Your task to perform on an android device: change notification settings in the gmail app Image 0: 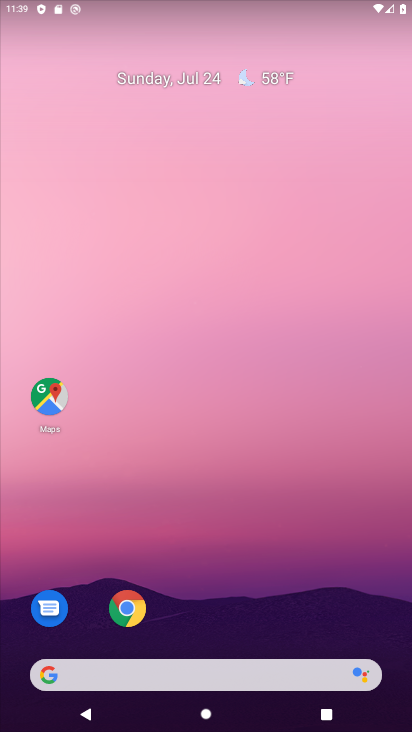
Step 0: drag from (232, 665) to (158, 178)
Your task to perform on an android device: change notification settings in the gmail app Image 1: 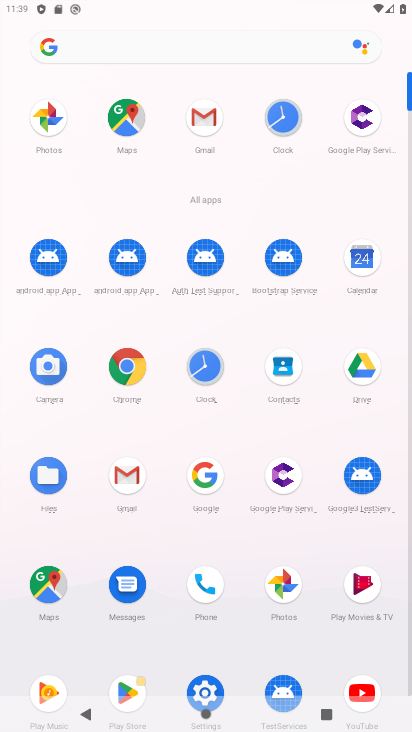
Step 1: click (133, 477)
Your task to perform on an android device: change notification settings in the gmail app Image 2: 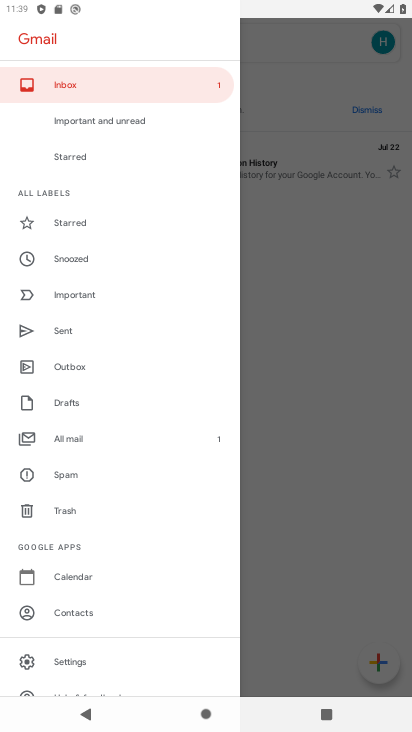
Step 2: click (87, 667)
Your task to perform on an android device: change notification settings in the gmail app Image 3: 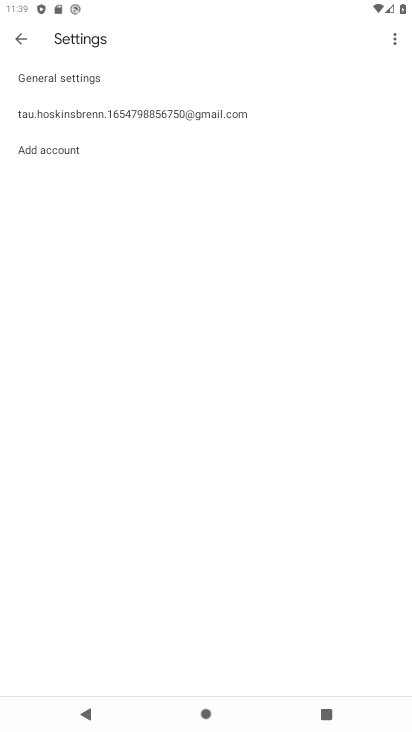
Step 3: click (111, 107)
Your task to perform on an android device: change notification settings in the gmail app Image 4: 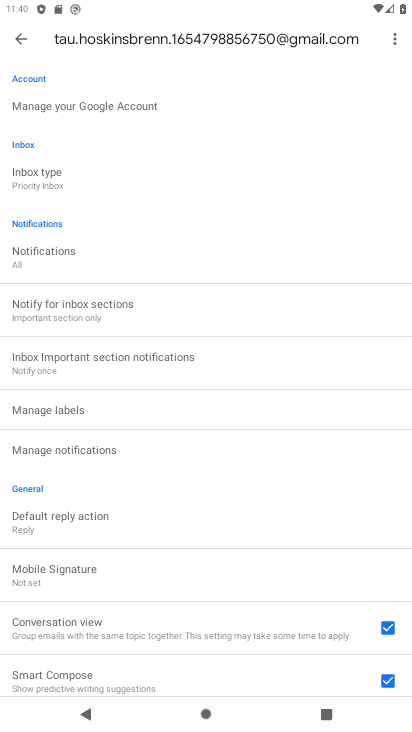
Step 4: click (111, 444)
Your task to perform on an android device: change notification settings in the gmail app Image 5: 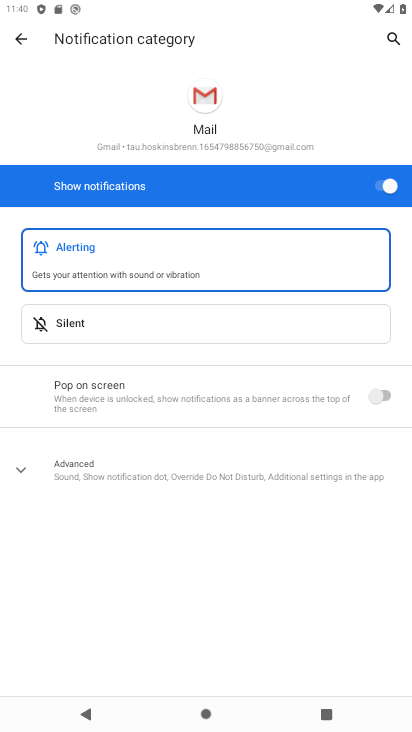
Step 5: click (284, 324)
Your task to perform on an android device: change notification settings in the gmail app Image 6: 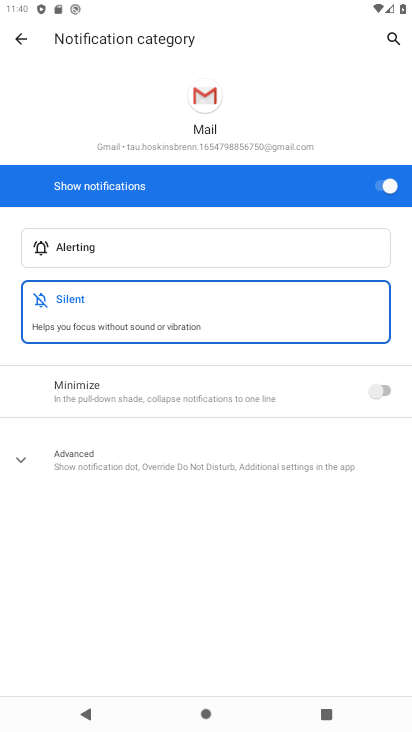
Step 6: task complete